Your task to perform on an android device: check out phone information Image 0: 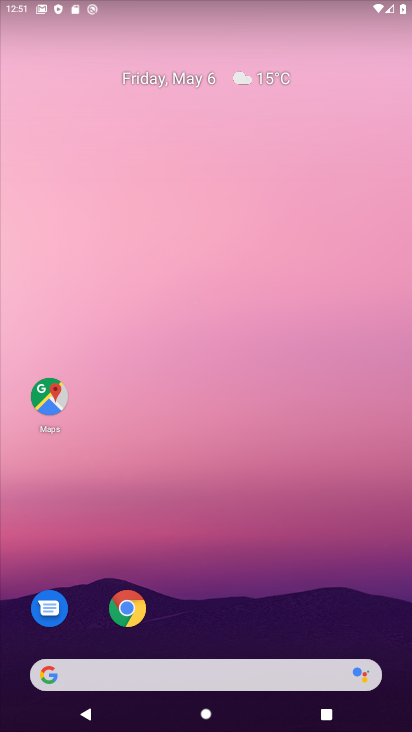
Step 0: drag from (240, 637) to (273, 50)
Your task to perform on an android device: check out phone information Image 1: 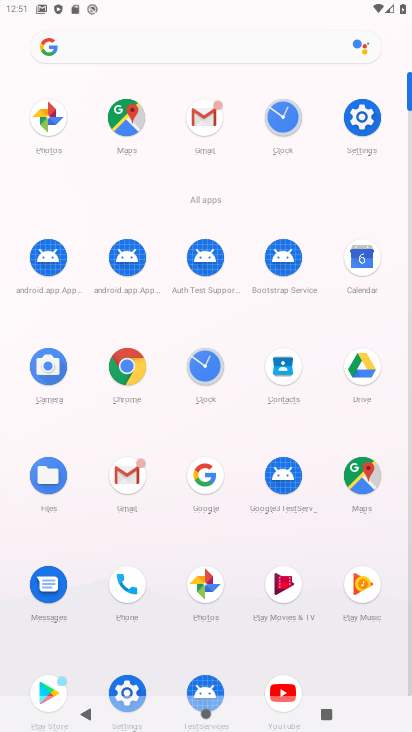
Step 1: click (368, 129)
Your task to perform on an android device: check out phone information Image 2: 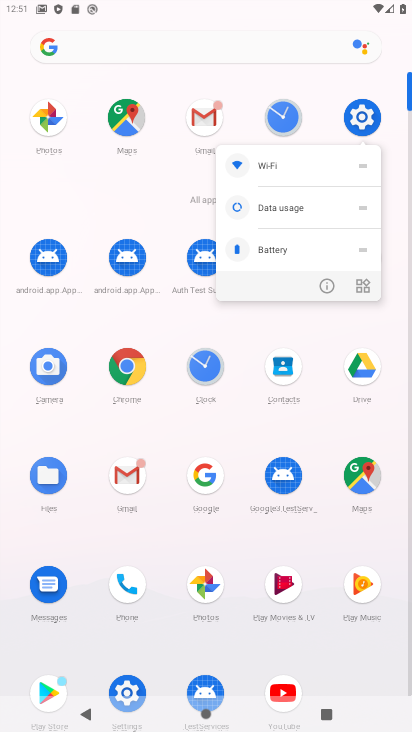
Step 2: click (362, 114)
Your task to perform on an android device: check out phone information Image 3: 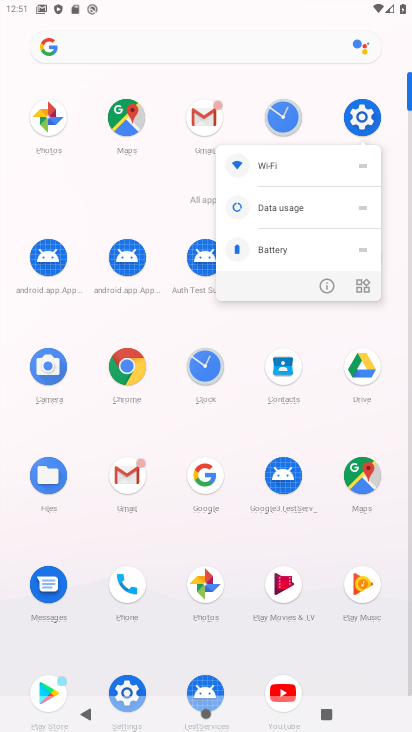
Step 3: click (367, 113)
Your task to perform on an android device: check out phone information Image 4: 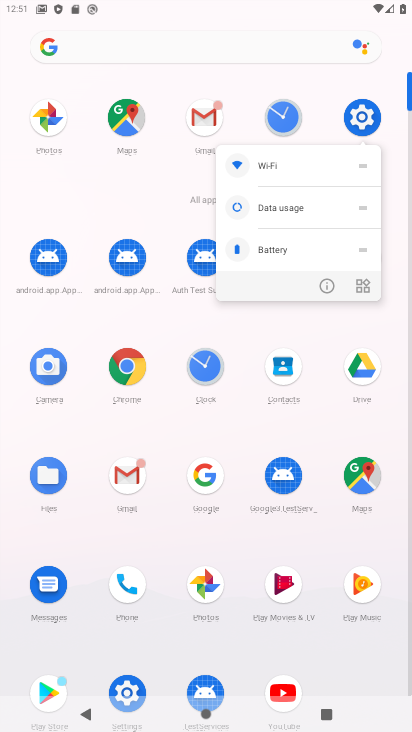
Step 4: click (362, 122)
Your task to perform on an android device: check out phone information Image 5: 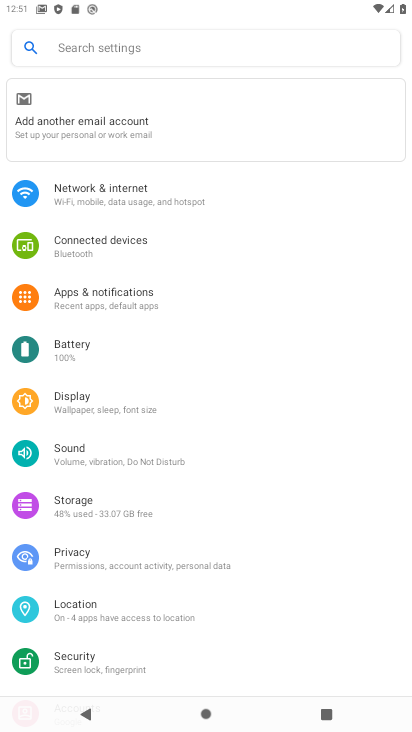
Step 5: drag from (158, 640) to (203, 313)
Your task to perform on an android device: check out phone information Image 6: 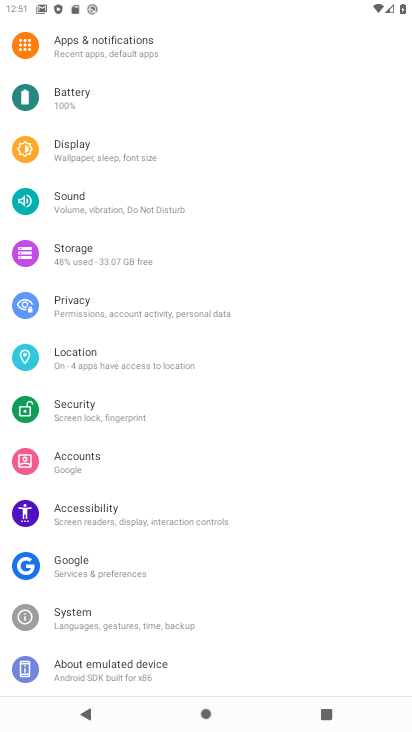
Step 6: click (116, 665)
Your task to perform on an android device: check out phone information Image 7: 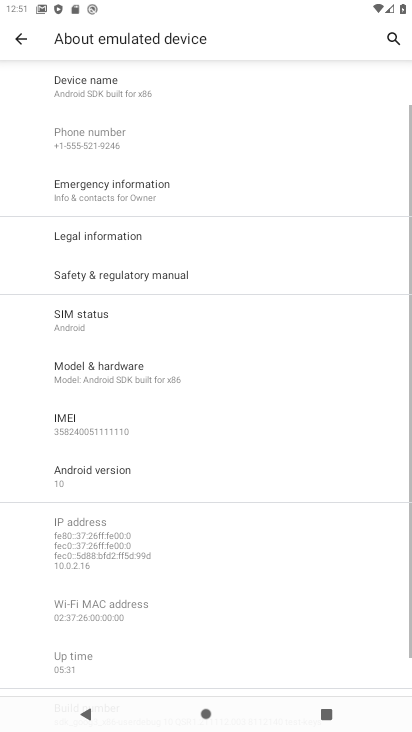
Step 7: task complete